Your task to perform on an android device: Clear the shopping cart on walmart.com. Search for bose soundlink on walmart.com, select the first entry, and add it to the cart. Image 0: 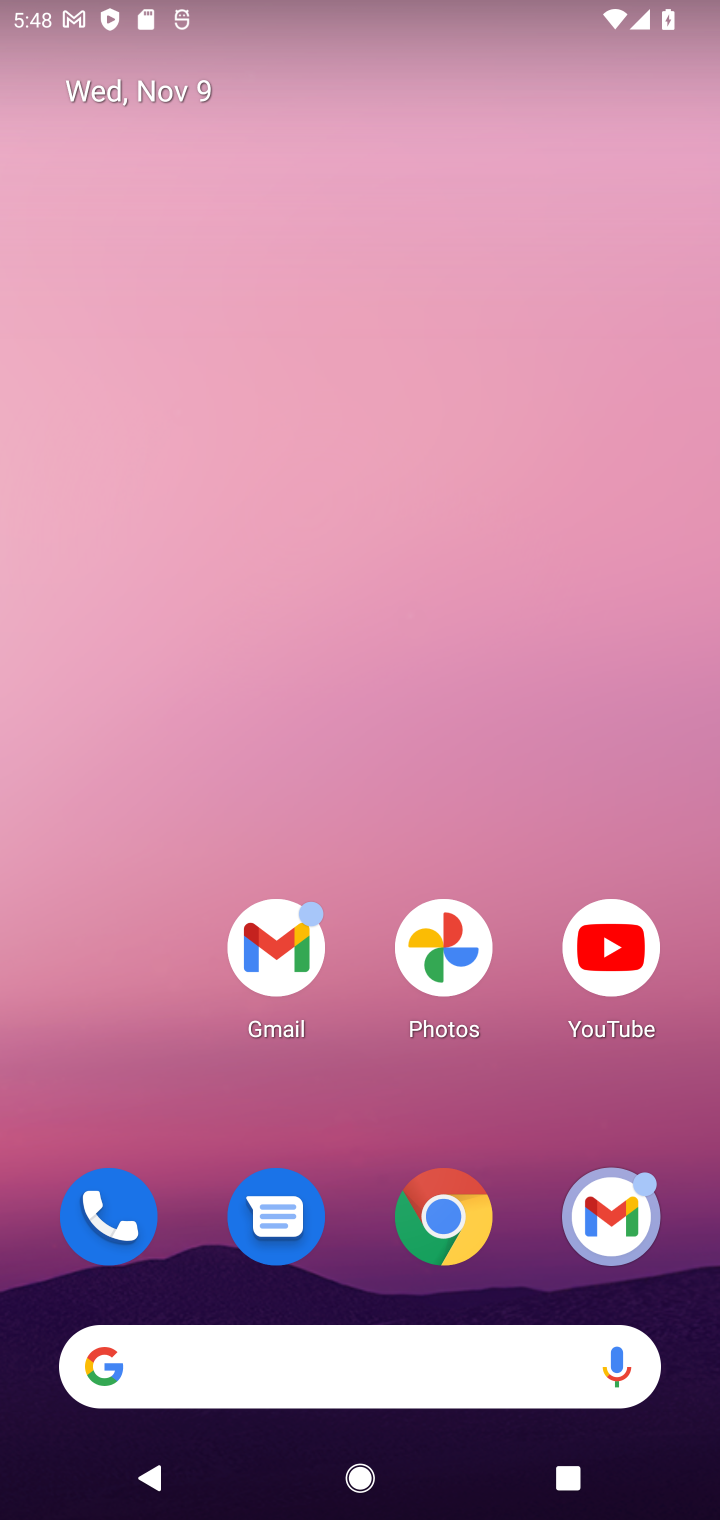
Step 0: drag from (359, 1119) to (413, 314)
Your task to perform on an android device: Clear the shopping cart on walmart.com. Search for bose soundlink on walmart.com, select the first entry, and add it to the cart. Image 1: 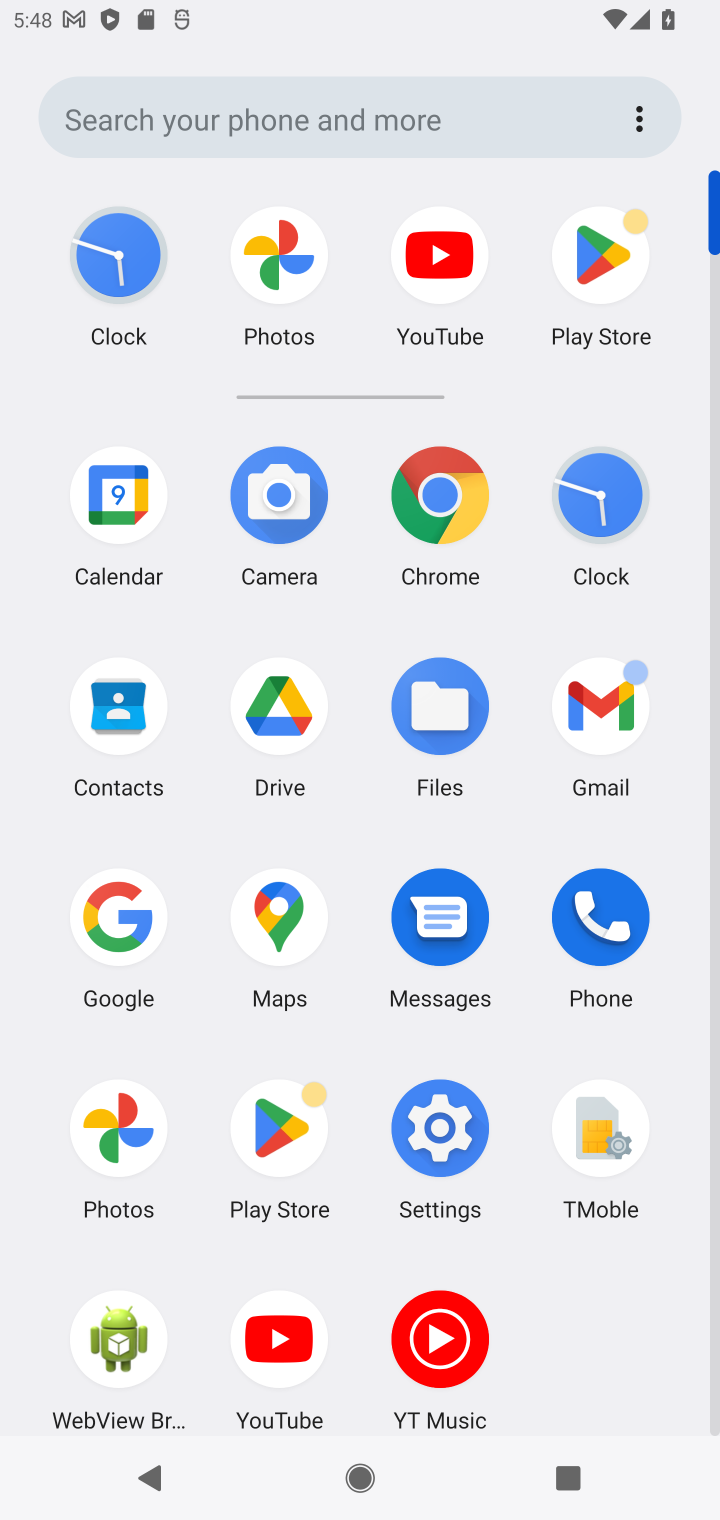
Step 1: click (435, 493)
Your task to perform on an android device: Clear the shopping cart on walmart.com. Search for bose soundlink on walmart.com, select the first entry, and add it to the cart. Image 2: 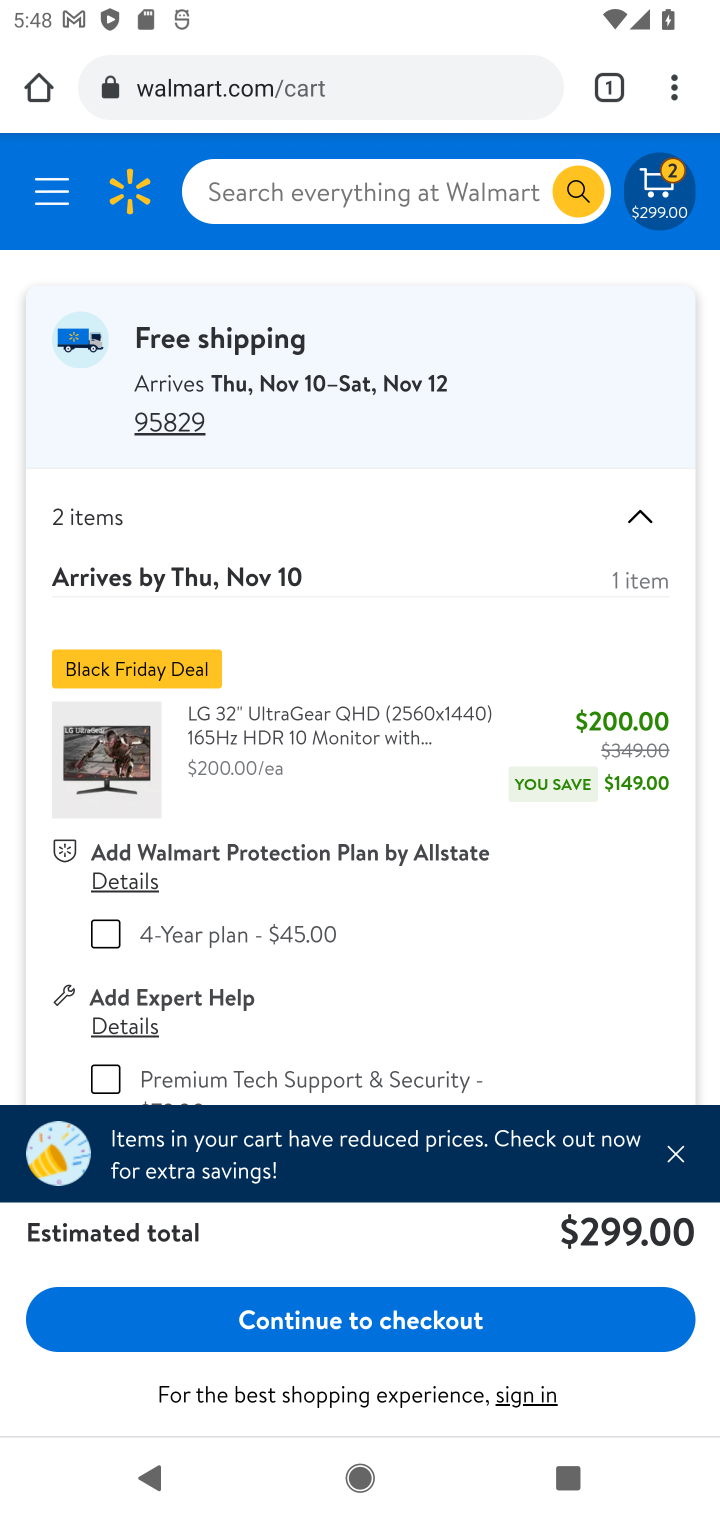
Step 2: drag from (573, 974) to (595, 606)
Your task to perform on an android device: Clear the shopping cart on walmart.com. Search for bose soundlink on walmart.com, select the first entry, and add it to the cart. Image 3: 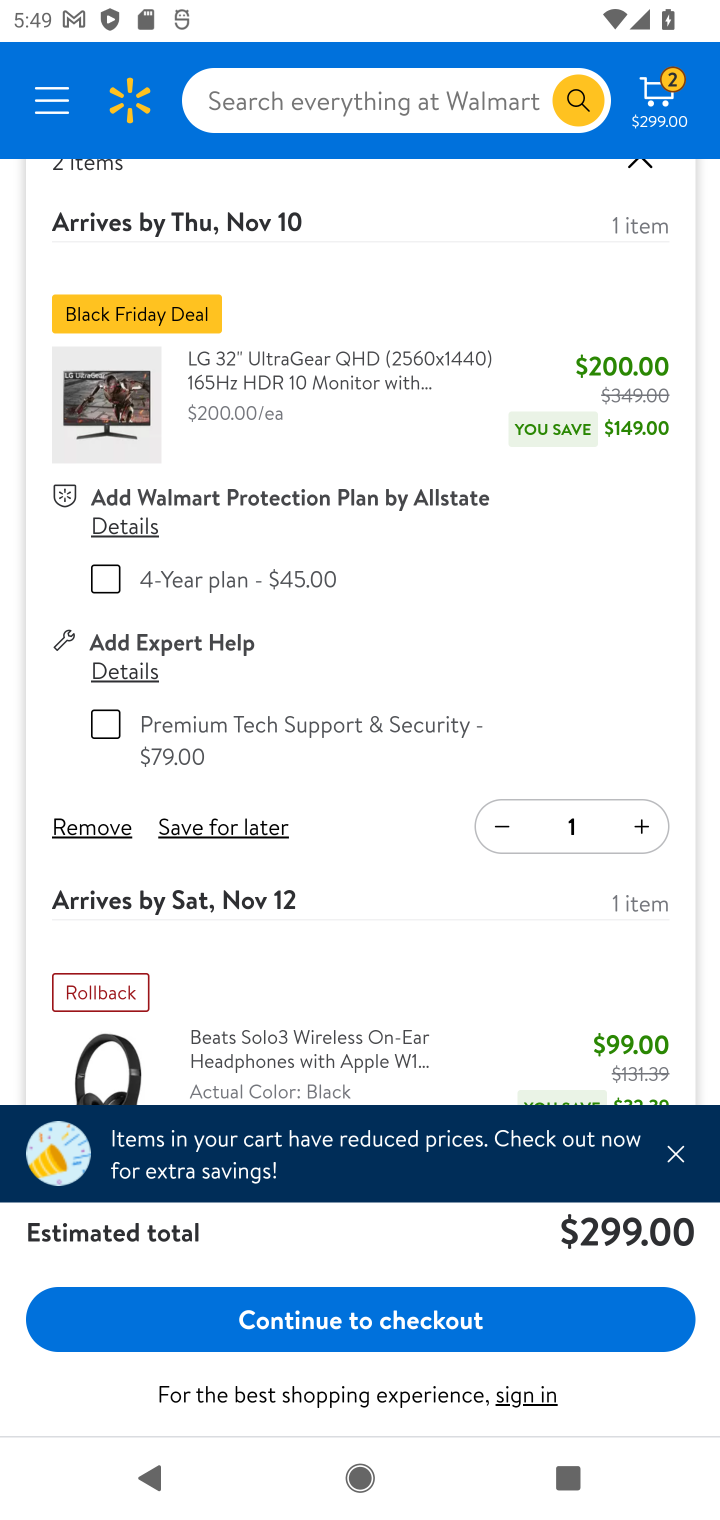
Step 3: click (95, 827)
Your task to perform on an android device: Clear the shopping cart on walmart.com. Search for bose soundlink on walmart.com, select the first entry, and add it to the cart. Image 4: 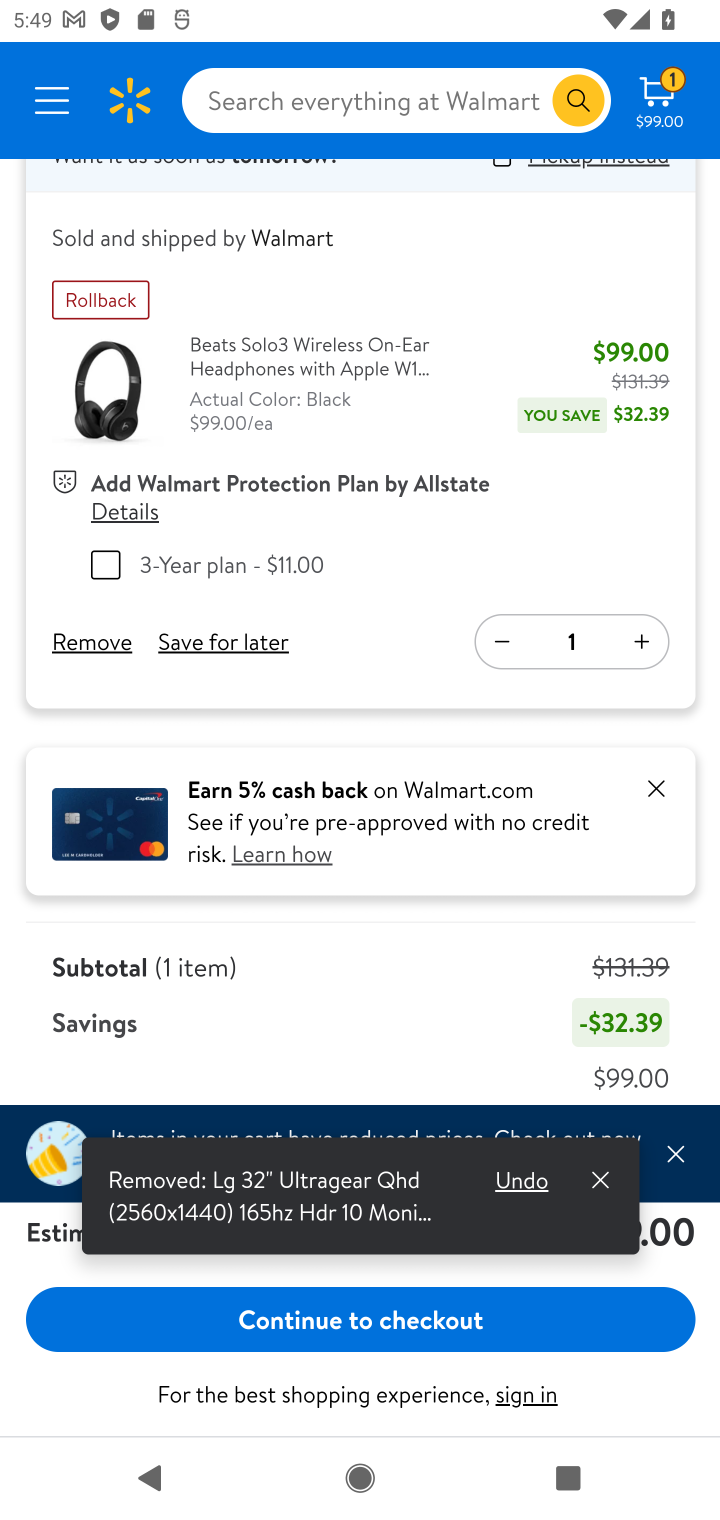
Step 4: click (96, 653)
Your task to perform on an android device: Clear the shopping cart on walmart.com. Search for bose soundlink on walmart.com, select the first entry, and add it to the cart. Image 5: 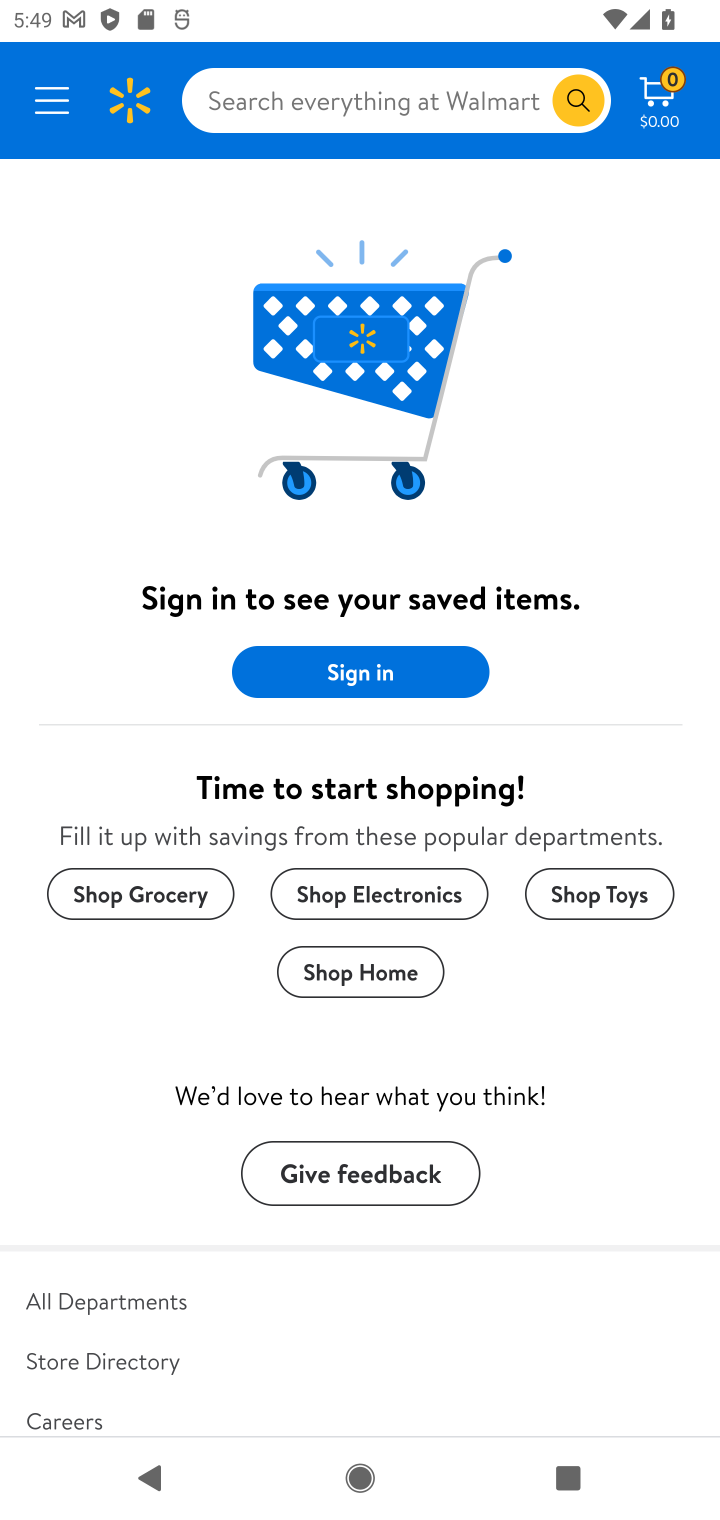
Step 5: click (454, 115)
Your task to perform on an android device: Clear the shopping cart on walmart.com. Search for bose soundlink on walmart.com, select the first entry, and add it to the cart. Image 6: 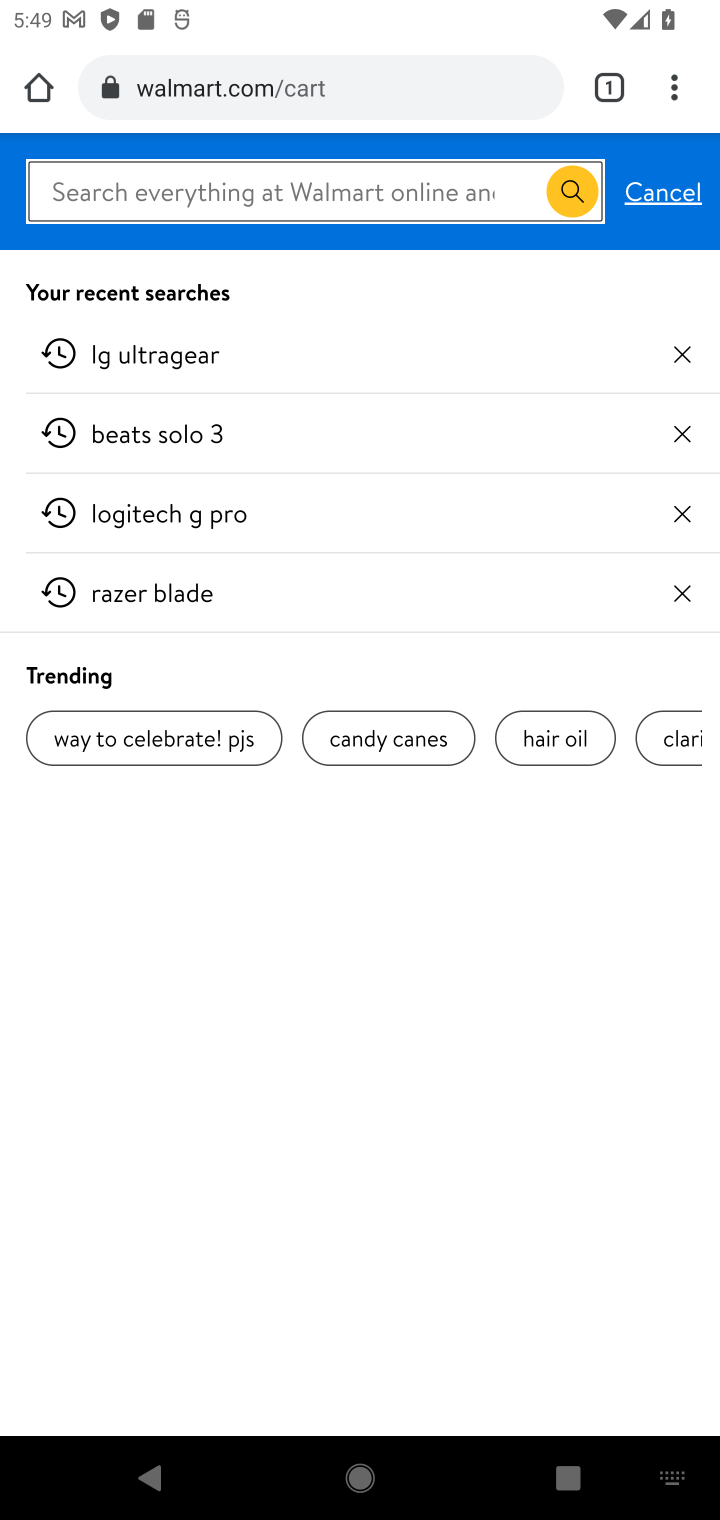
Step 6: type "bose soundlink"
Your task to perform on an android device: Clear the shopping cart on walmart.com. Search for bose soundlink on walmart.com, select the first entry, and add it to the cart. Image 7: 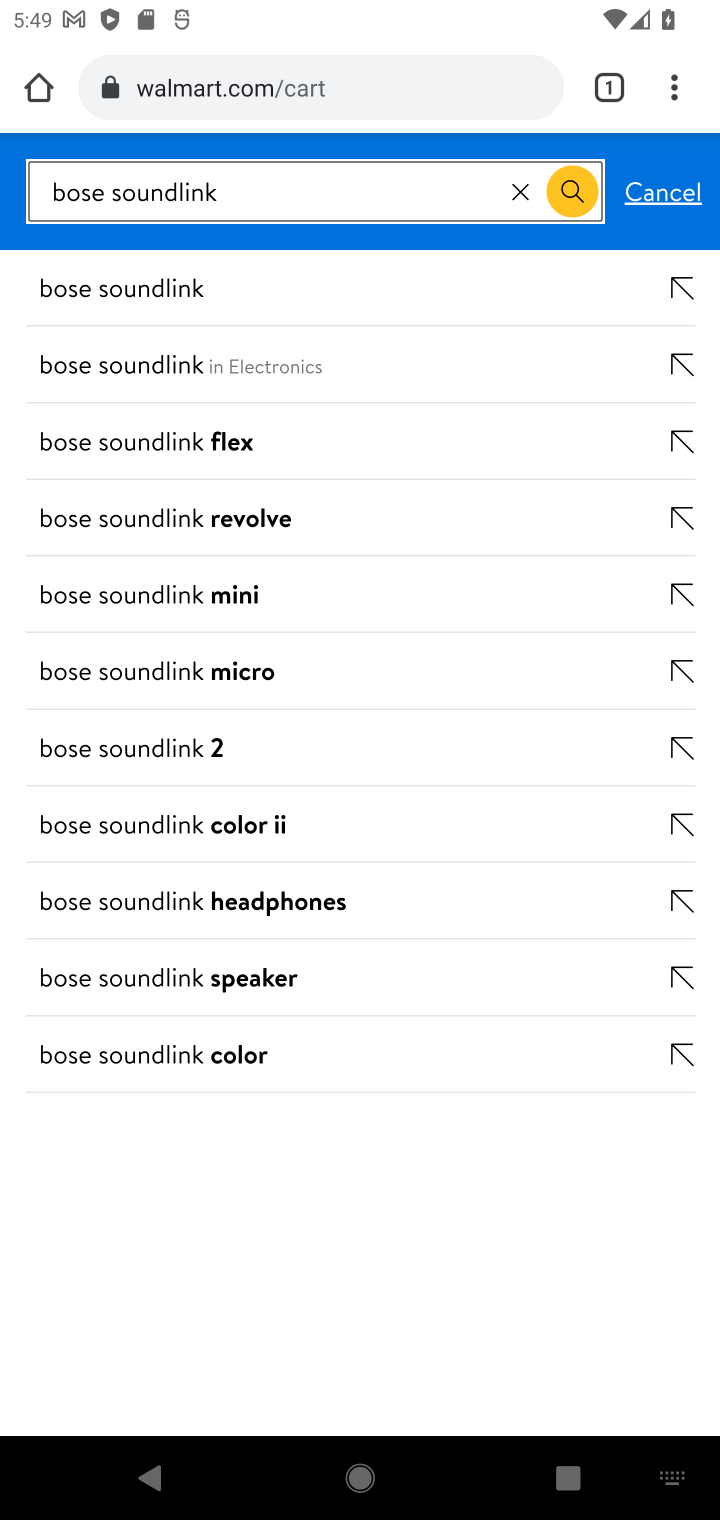
Step 7: press enter
Your task to perform on an android device: Clear the shopping cart on walmart.com. Search for bose soundlink on walmart.com, select the first entry, and add it to the cart. Image 8: 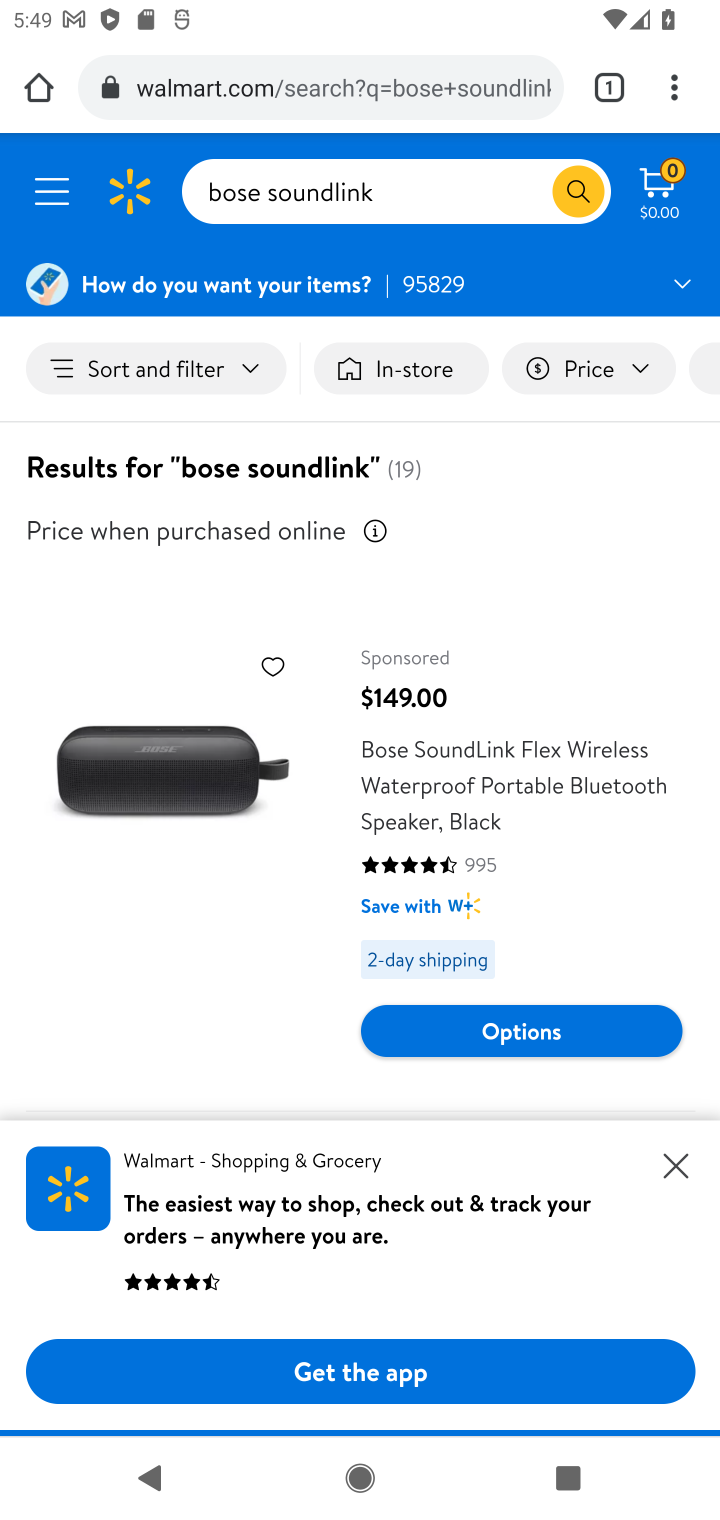
Step 8: drag from (482, 918) to (452, 397)
Your task to perform on an android device: Clear the shopping cart on walmart.com. Search for bose soundlink on walmart.com, select the first entry, and add it to the cart. Image 9: 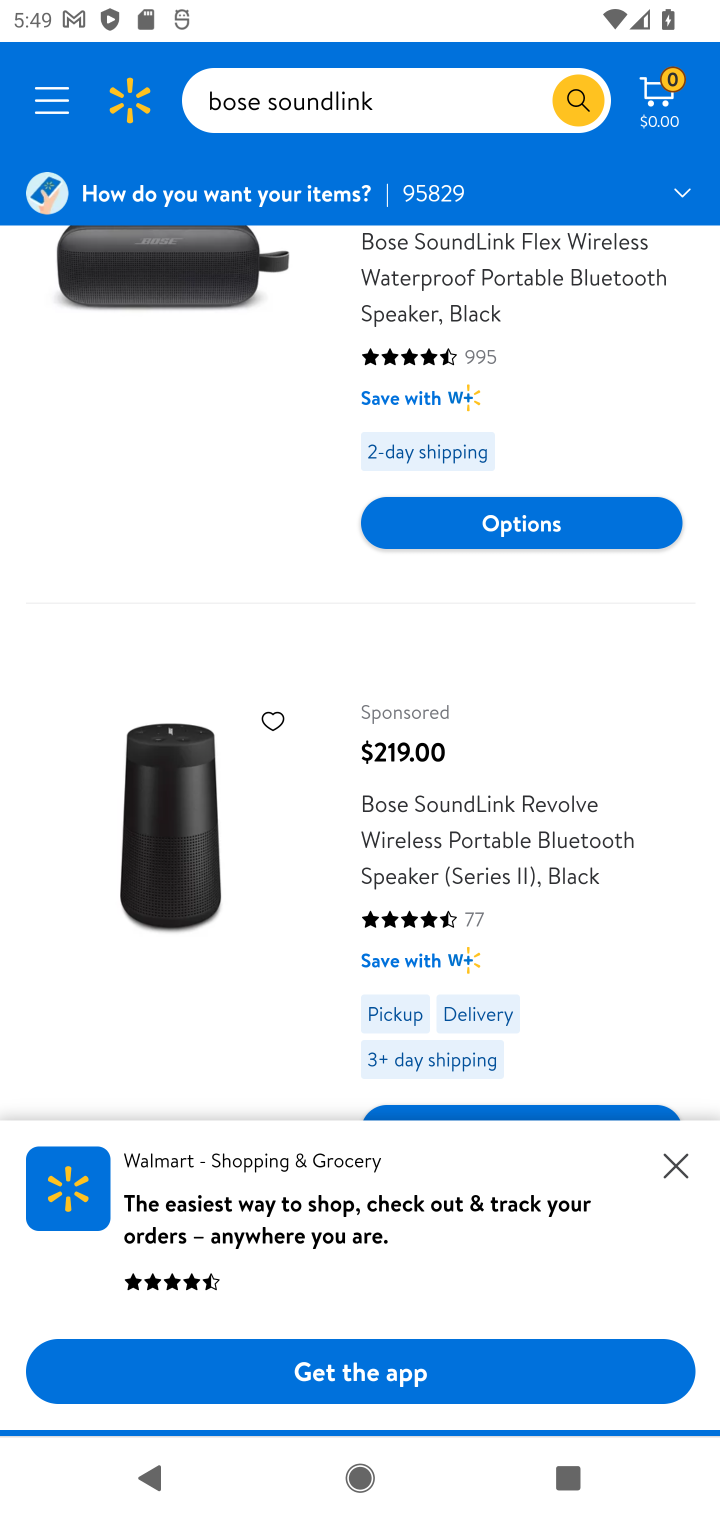
Step 9: drag from (156, 911) to (214, 508)
Your task to perform on an android device: Clear the shopping cart on walmart.com. Search for bose soundlink on walmart.com, select the first entry, and add it to the cart. Image 10: 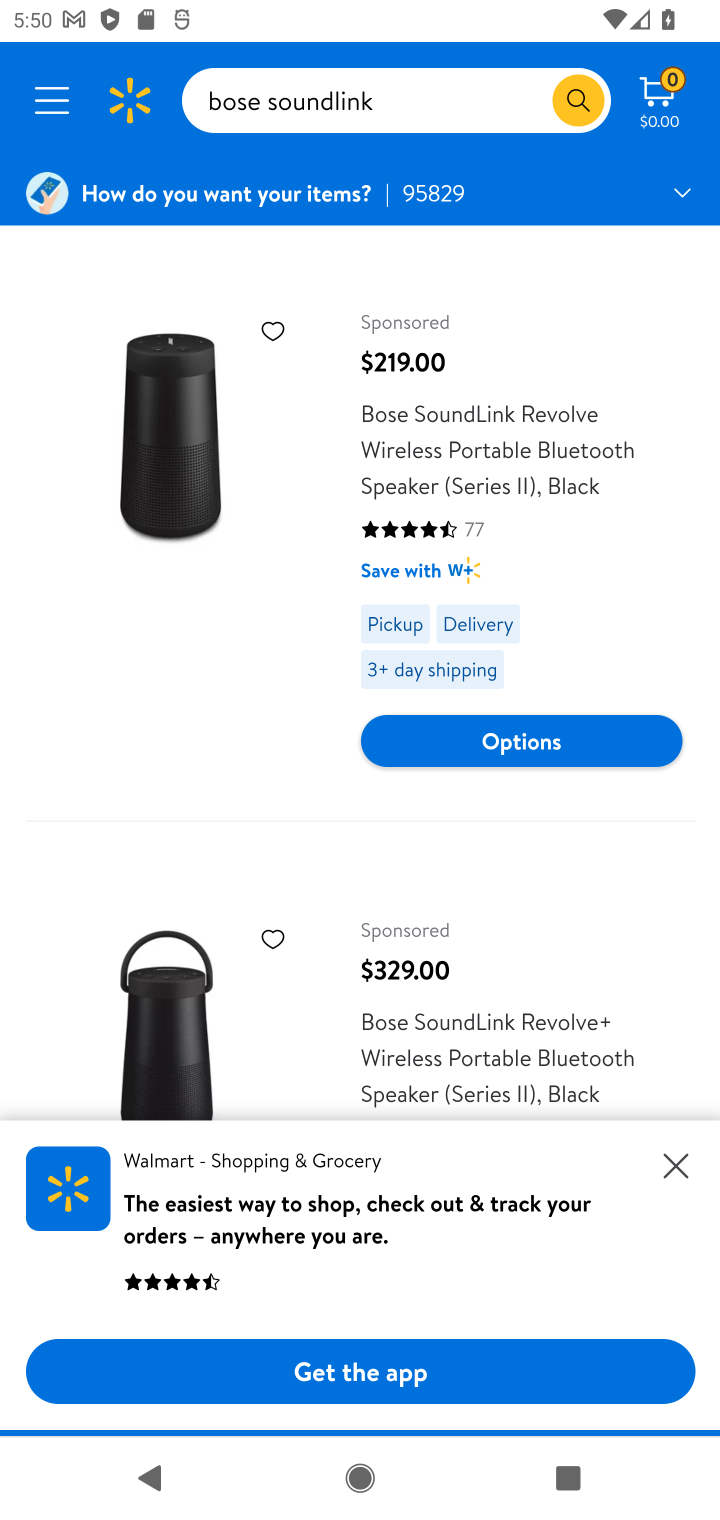
Step 10: drag from (288, 1016) to (272, 467)
Your task to perform on an android device: Clear the shopping cart on walmart.com. Search for bose soundlink on walmart.com, select the first entry, and add it to the cart. Image 11: 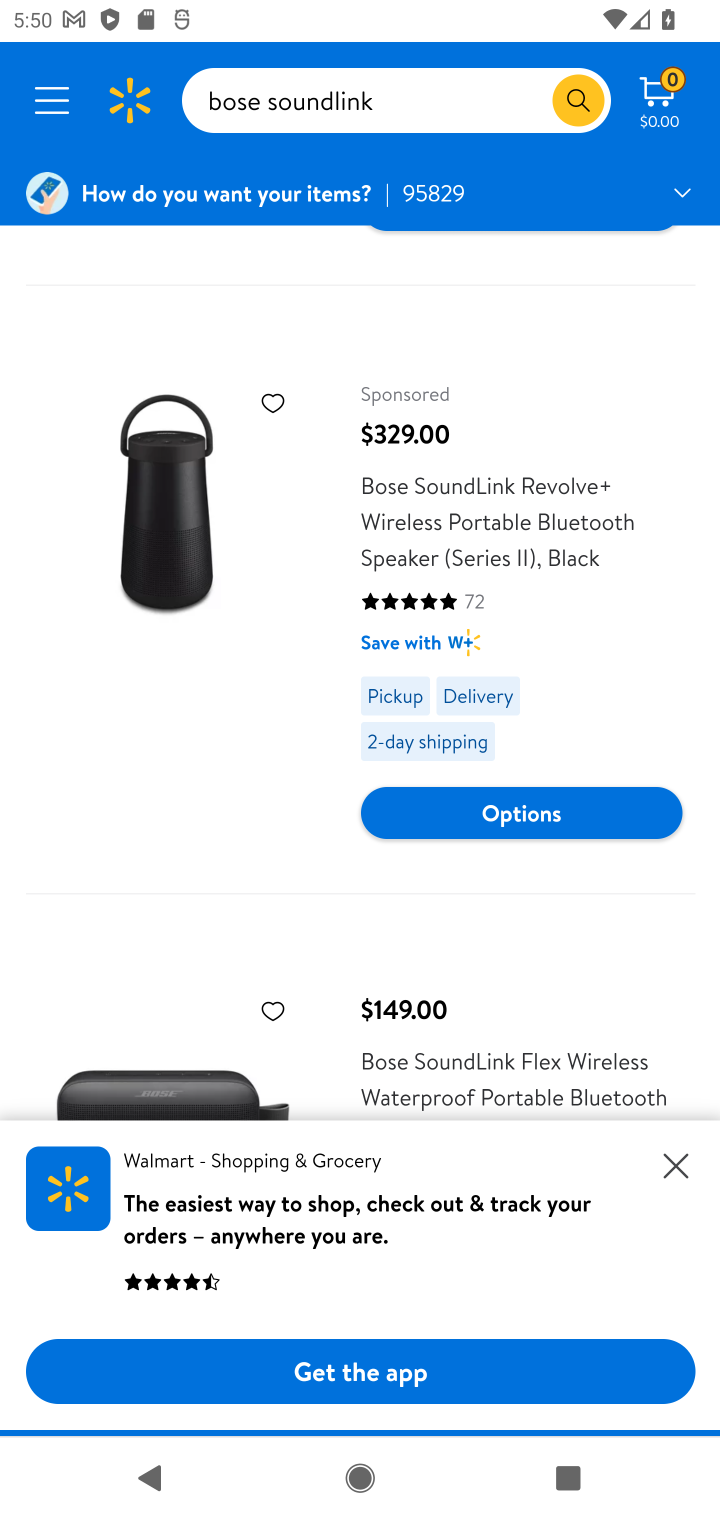
Step 11: drag from (303, 968) to (338, 377)
Your task to perform on an android device: Clear the shopping cart on walmart.com. Search for bose soundlink on walmart.com, select the first entry, and add it to the cart. Image 12: 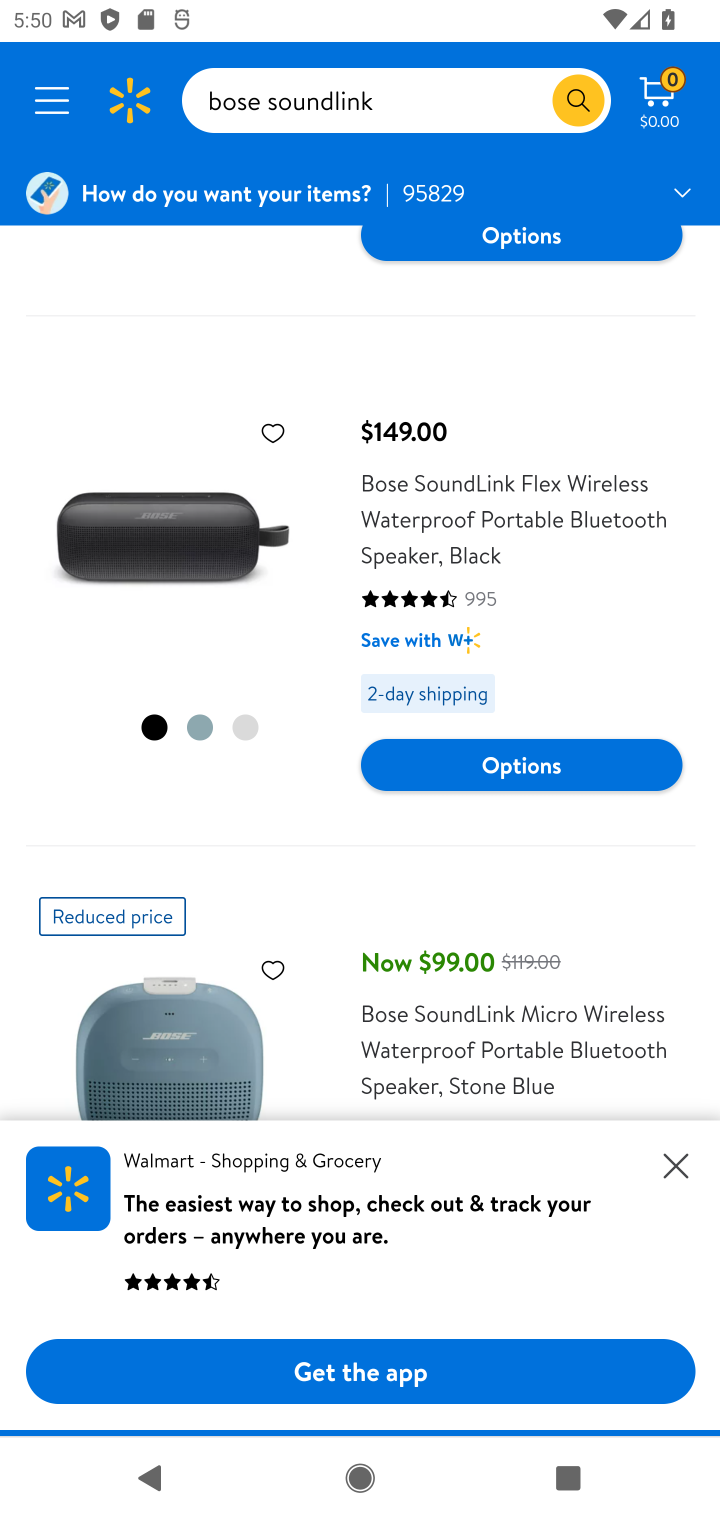
Step 12: drag from (232, 383) to (264, 962)
Your task to perform on an android device: Clear the shopping cart on walmart.com. Search for bose soundlink on walmart.com, select the first entry, and add it to the cart. Image 13: 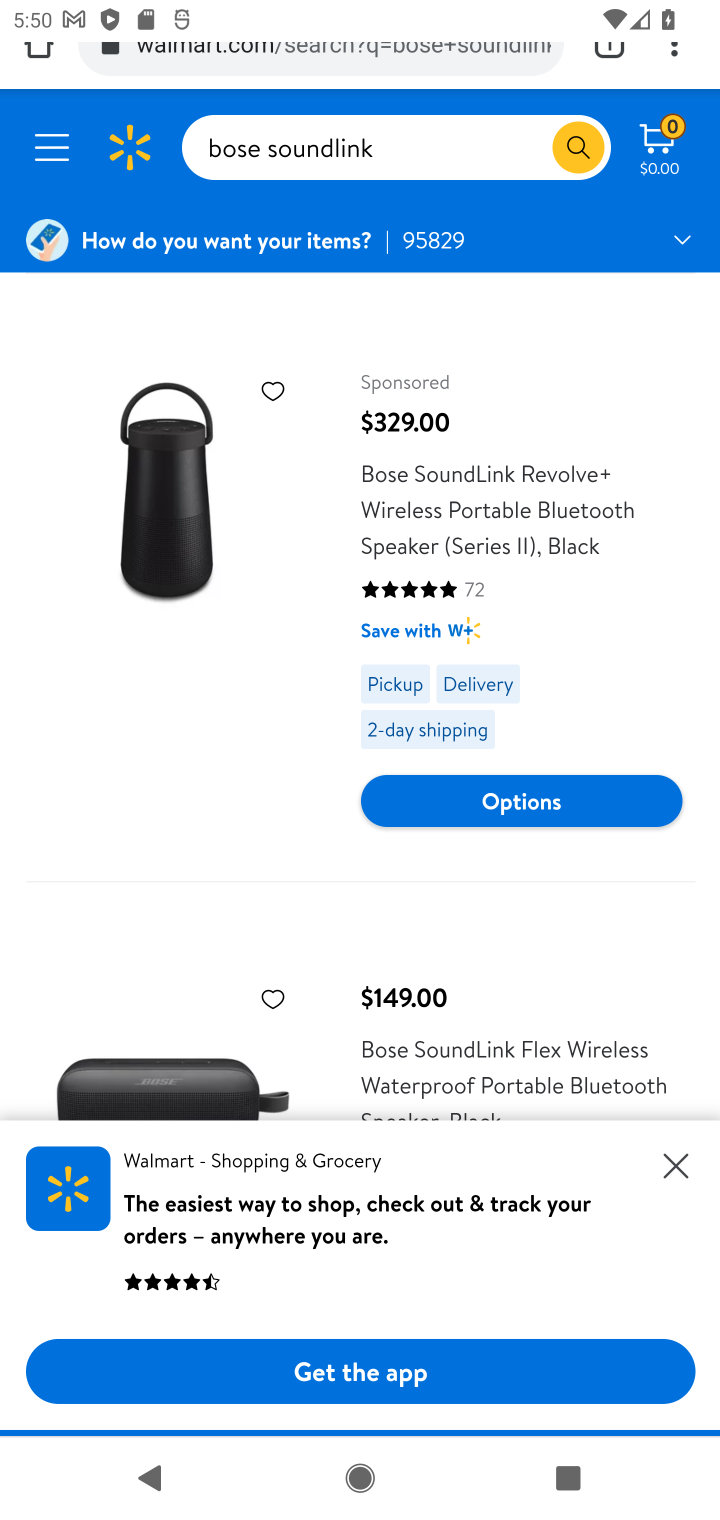
Step 13: drag from (270, 944) to (287, 676)
Your task to perform on an android device: Clear the shopping cart on walmart.com. Search for bose soundlink on walmart.com, select the first entry, and add it to the cart. Image 14: 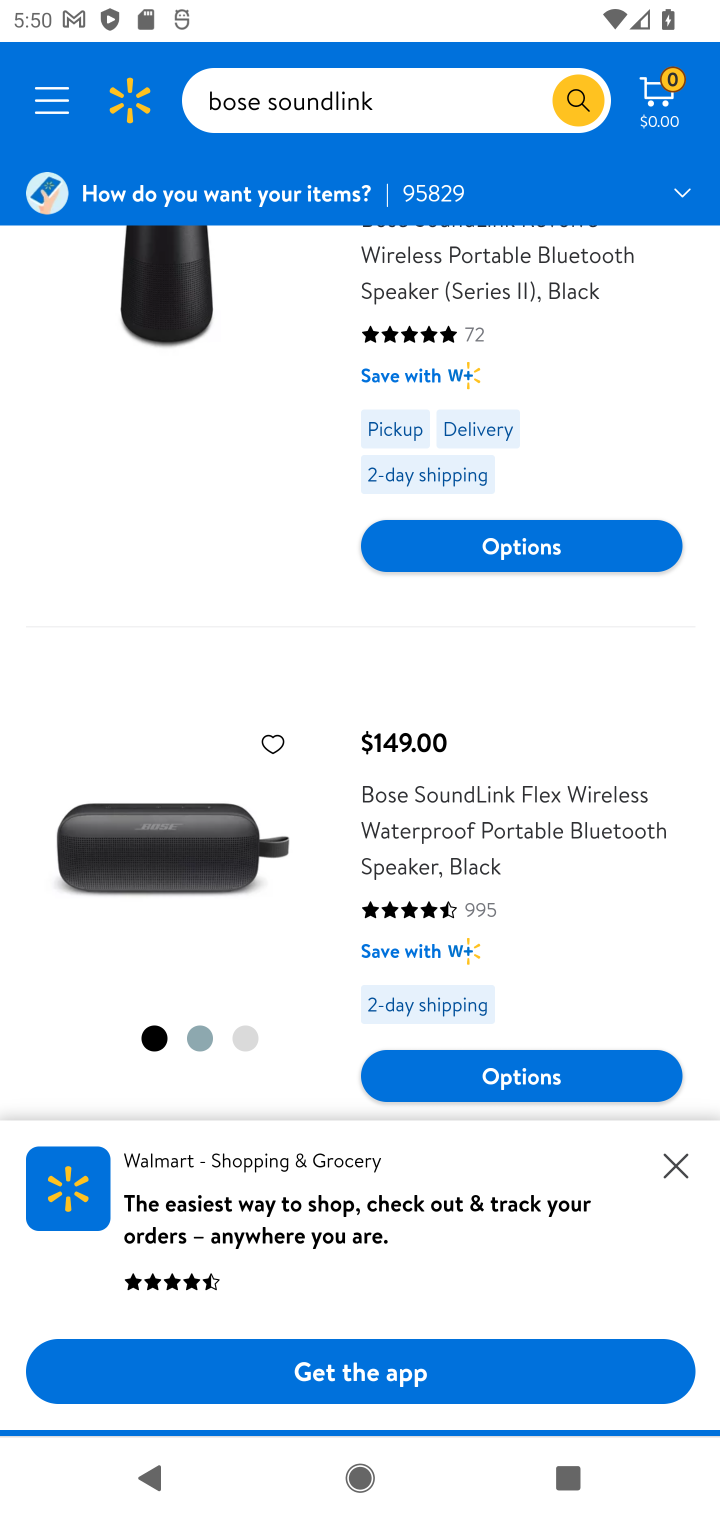
Step 14: click (488, 1049)
Your task to perform on an android device: Clear the shopping cart on walmart.com. Search for bose soundlink on walmart.com, select the first entry, and add it to the cart. Image 15: 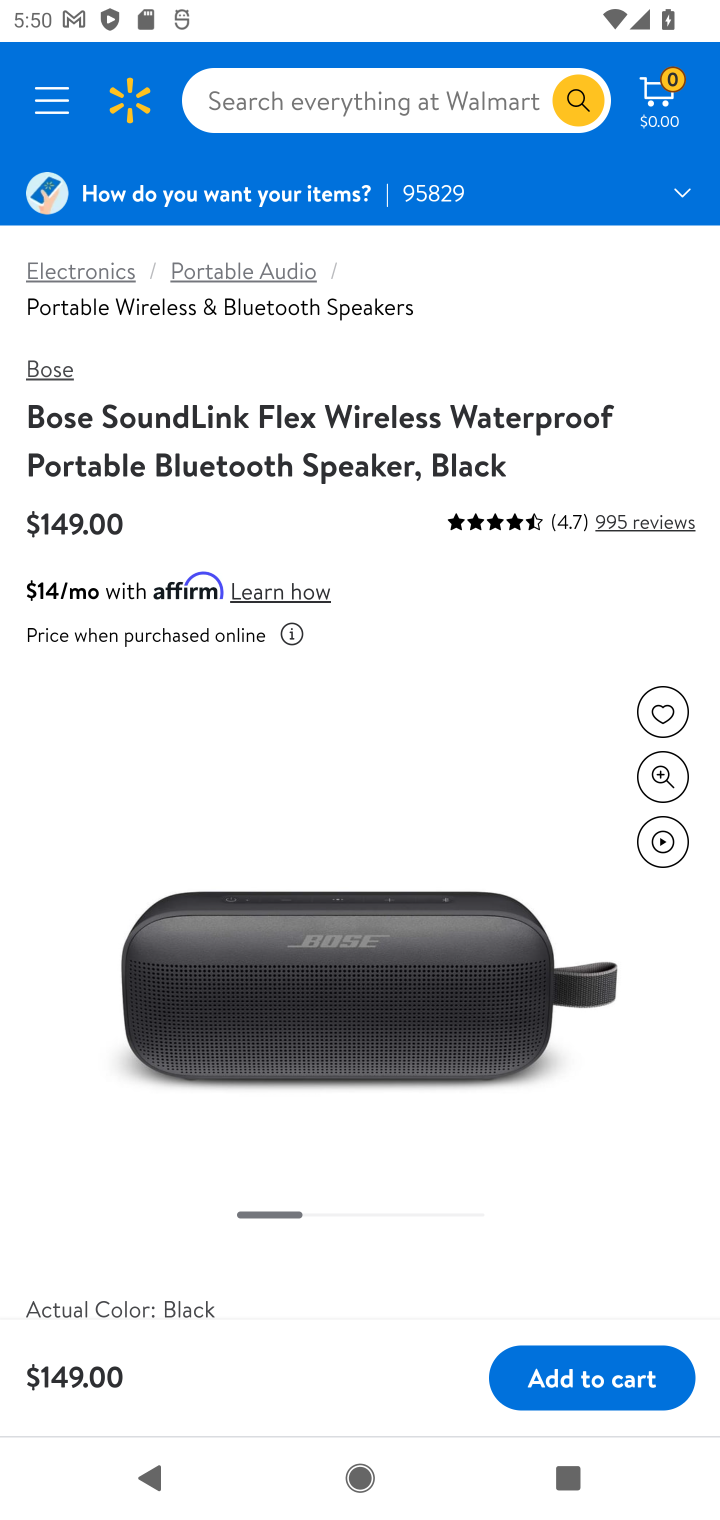
Step 15: click (551, 1377)
Your task to perform on an android device: Clear the shopping cart on walmart.com. Search for bose soundlink on walmart.com, select the first entry, and add it to the cart. Image 16: 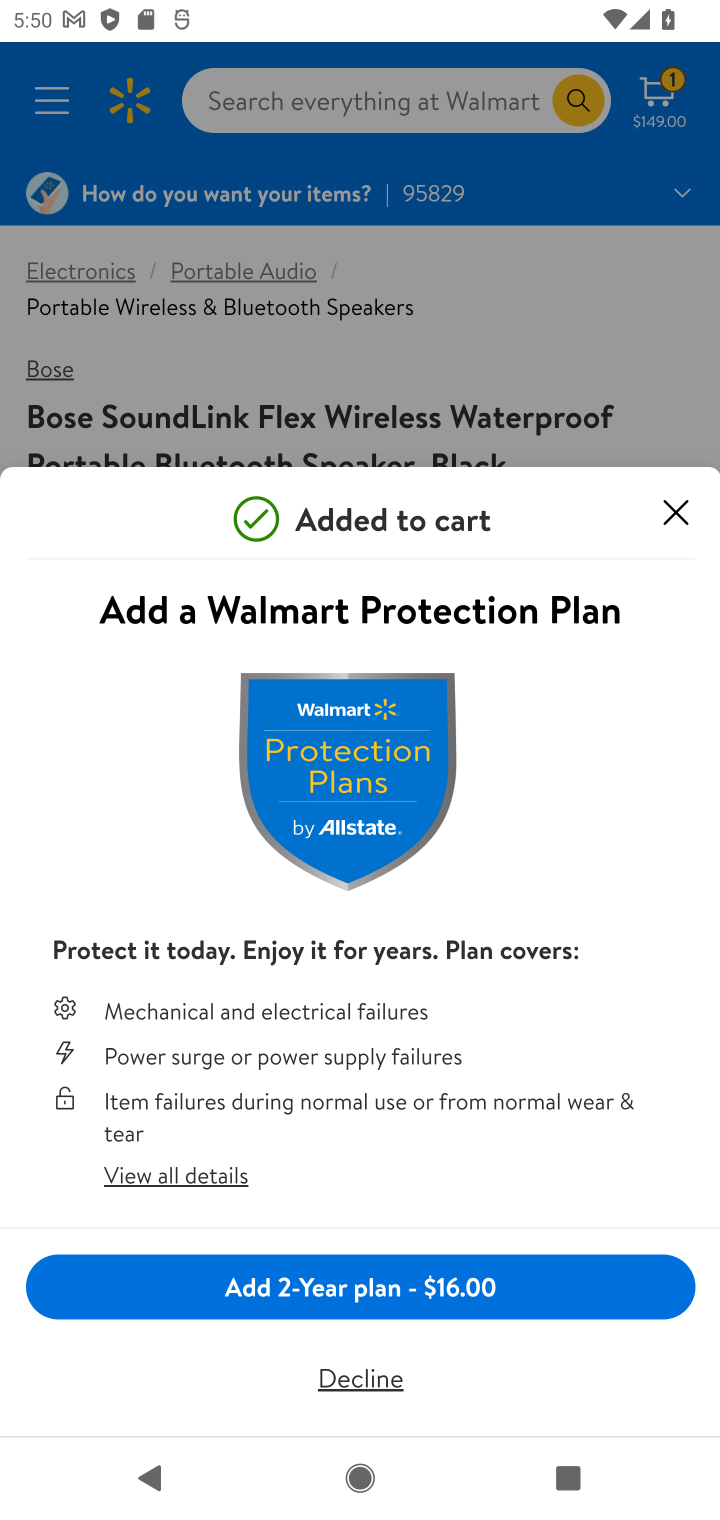
Step 16: task complete